Your task to perform on an android device: Open Google Maps Image 0: 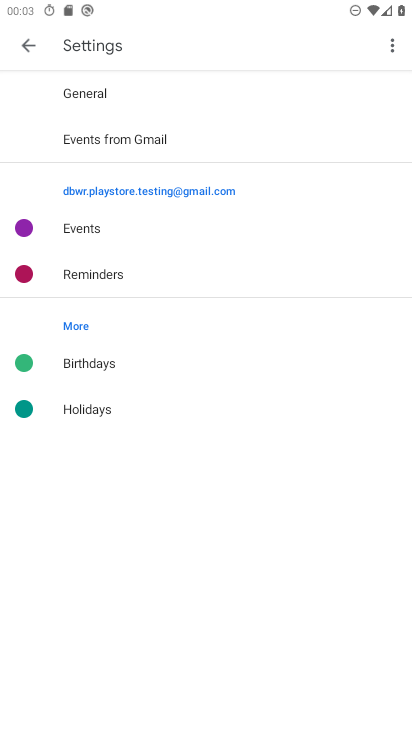
Step 0: press home button
Your task to perform on an android device: Open Google Maps Image 1: 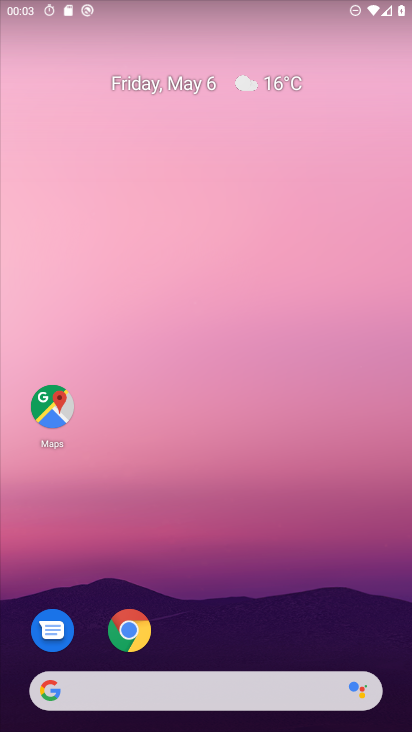
Step 1: click (32, 407)
Your task to perform on an android device: Open Google Maps Image 2: 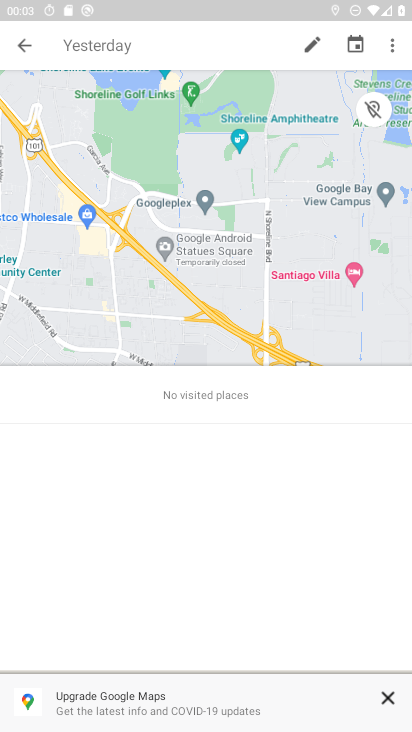
Step 2: task complete